Your task to perform on an android device: delete location history Image 0: 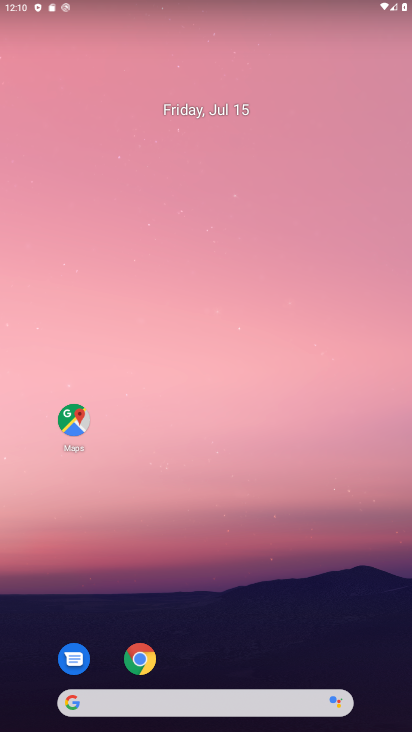
Step 0: drag from (210, 632) to (210, 145)
Your task to perform on an android device: delete location history Image 1: 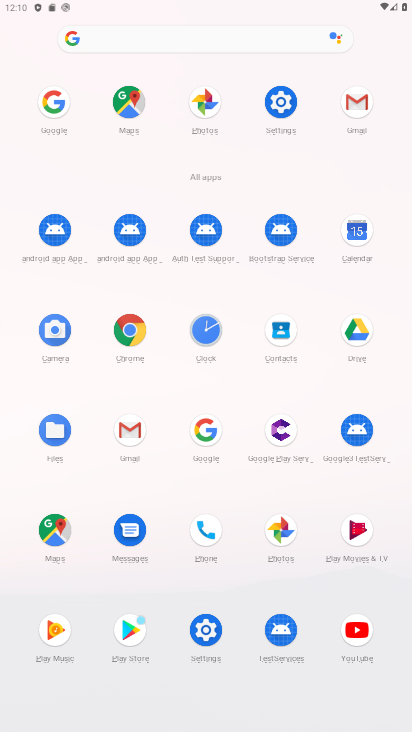
Step 1: click (135, 97)
Your task to perform on an android device: delete location history Image 2: 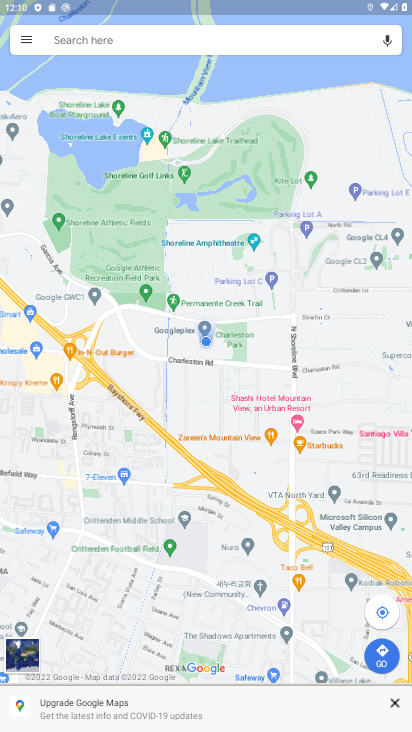
Step 2: click (35, 41)
Your task to perform on an android device: delete location history Image 3: 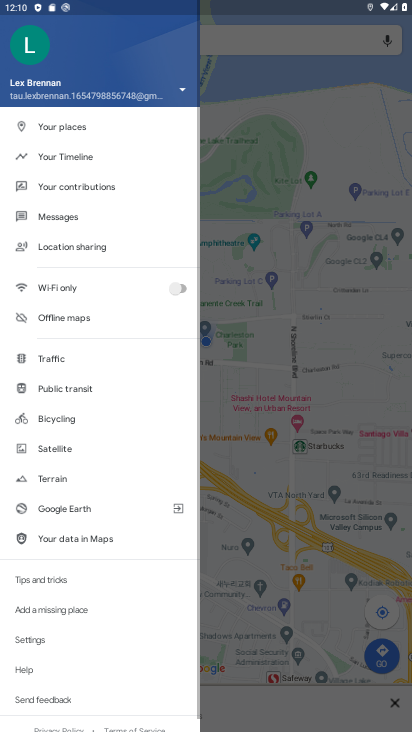
Step 3: click (95, 157)
Your task to perform on an android device: delete location history Image 4: 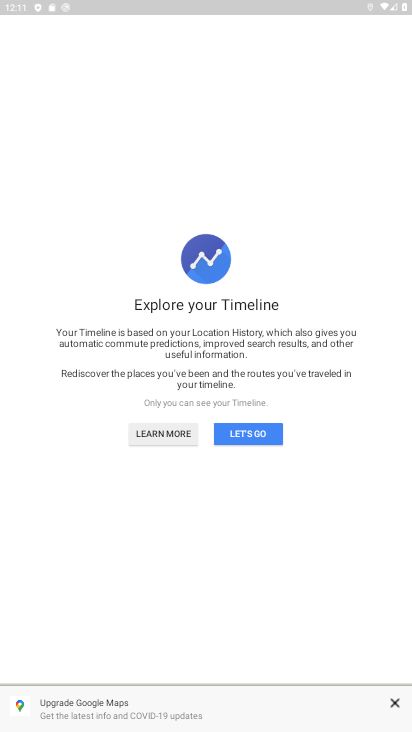
Step 4: click (246, 430)
Your task to perform on an android device: delete location history Image 5: 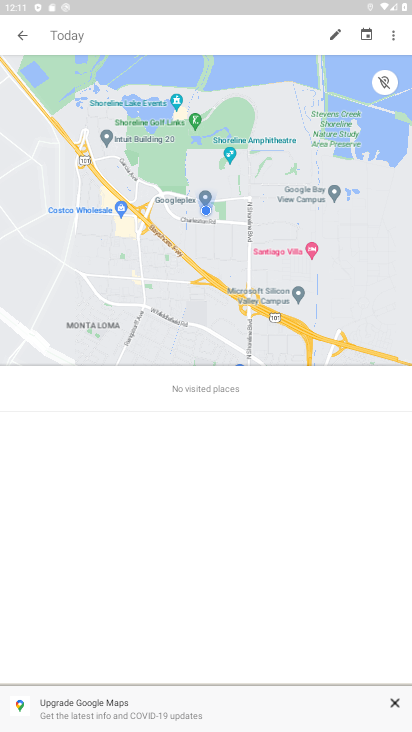
Step 5: click (396, 38)
Your task to perform on an android device: delete location history Image 6: 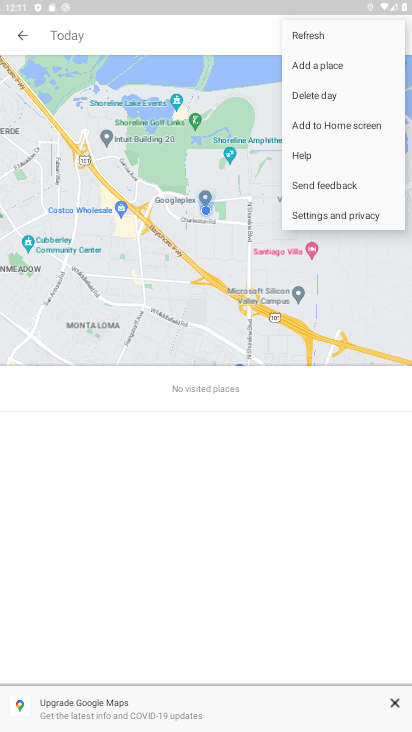
Step 6: click (333, 214)
Your task to perform on an android device: delete location history Image 7: 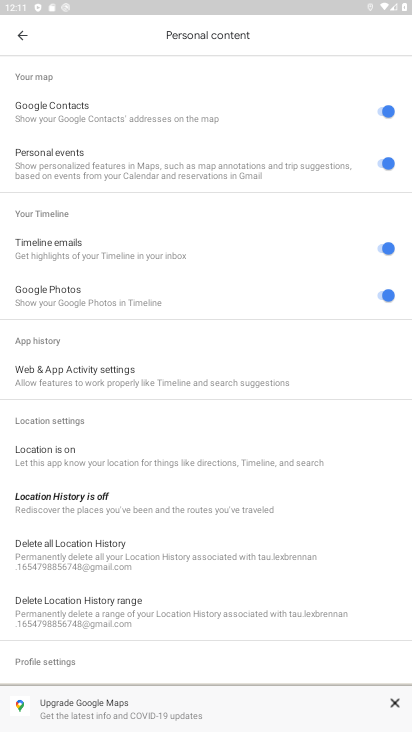
Step 7: click (76, 557)
Your task to perform on an android device: delete location history Image 8: 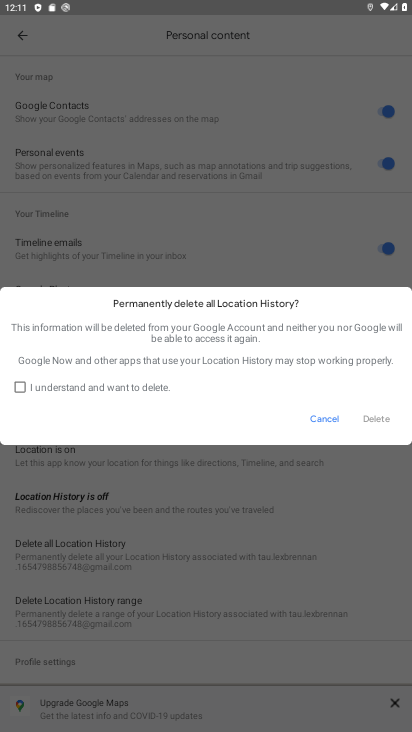
Step 8: click (64, 382)
Your task to perform on an android device: delete location history Image 9: 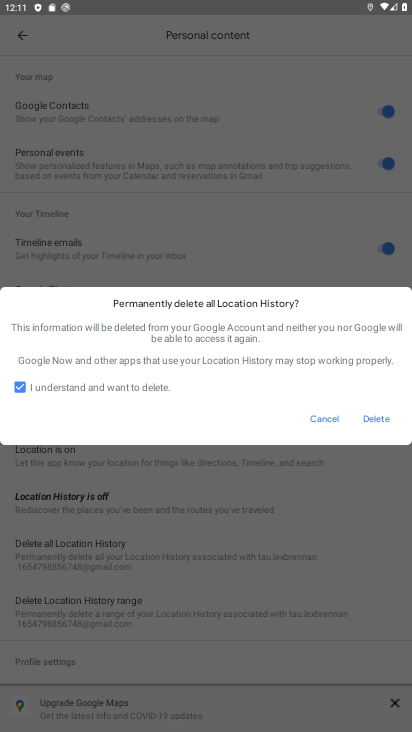
Step 9: click (374, 418)
Your task to perform on an android device: delete location history Image 10: 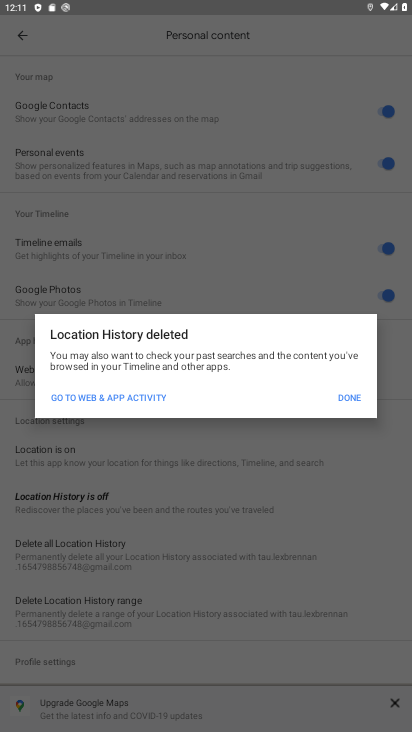
Step 10: click (348, 402)
Your task to perform on an android device: delete location history Image 11: 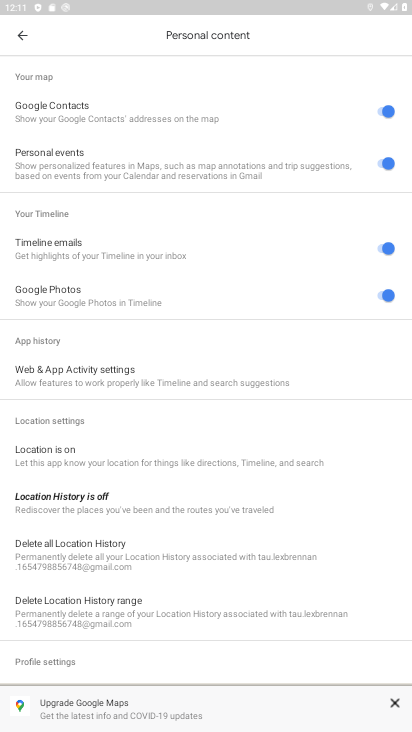
Step 11: task complete